Your task to perform on an android device: Go to display settings Image 0: 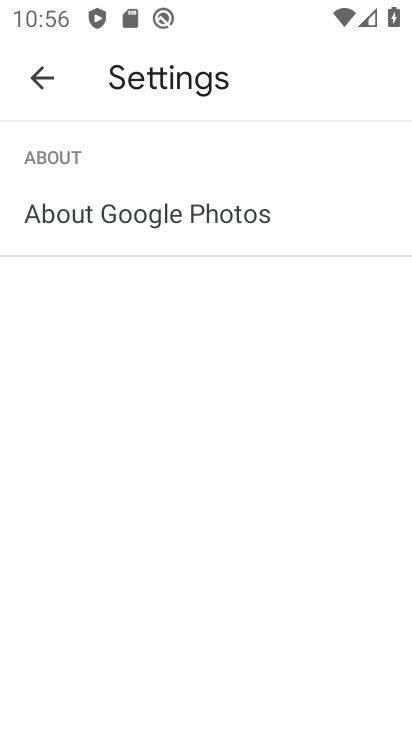
Step 0: press home button
Your task to perform on an android device: Go to display settings Image 1: 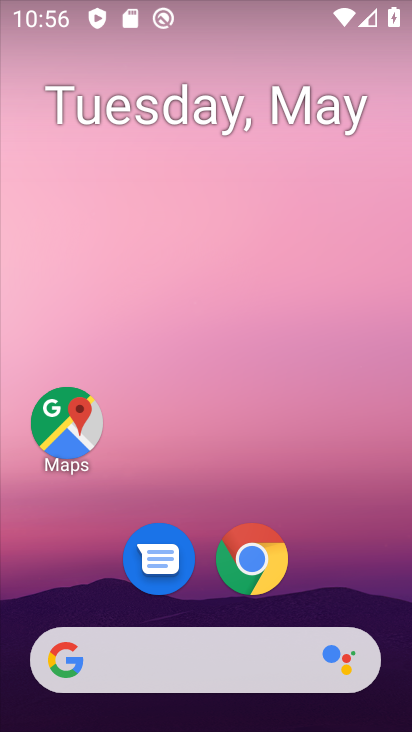
Step 1: drag from (390, 620) to (327, 59)
Your task to perform on an android device: Go to display settings Image 2: 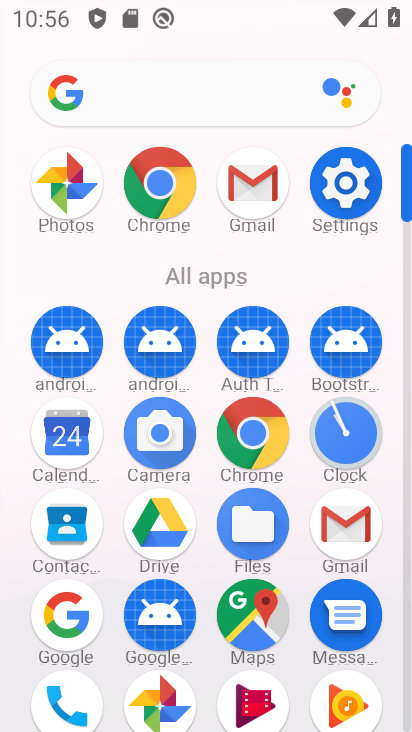
Step 2: click (352, 185)
Your task to perform on an android device: Go to display settings Image 3: 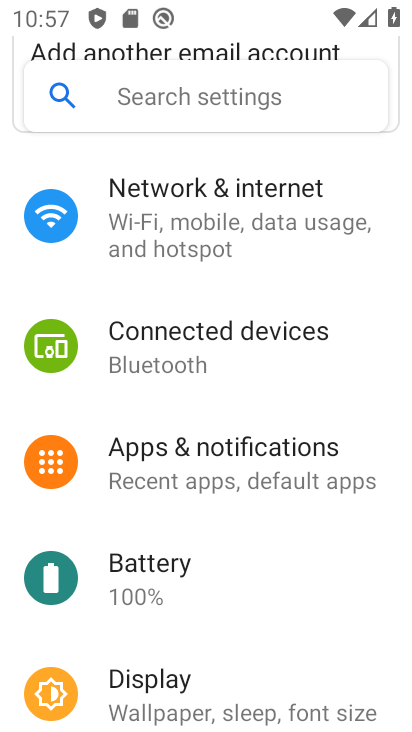
Step 3: click (274, 686)
Your task to perform on an android device: Go to display settings Image 4: 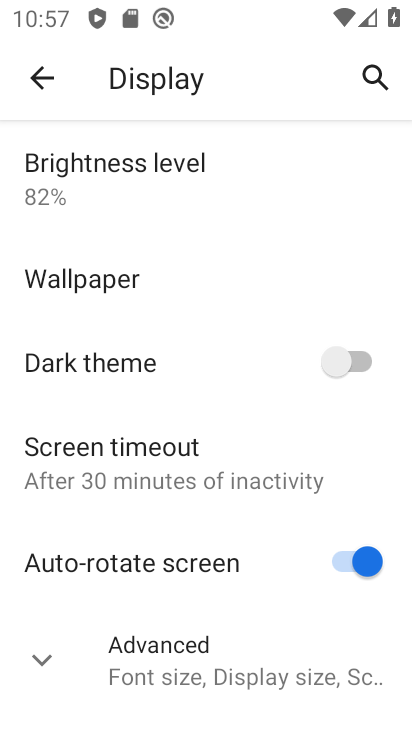
Step 4: task complete